Your task to perform on an android device: What's the weather going to be this weekend? Image 0: 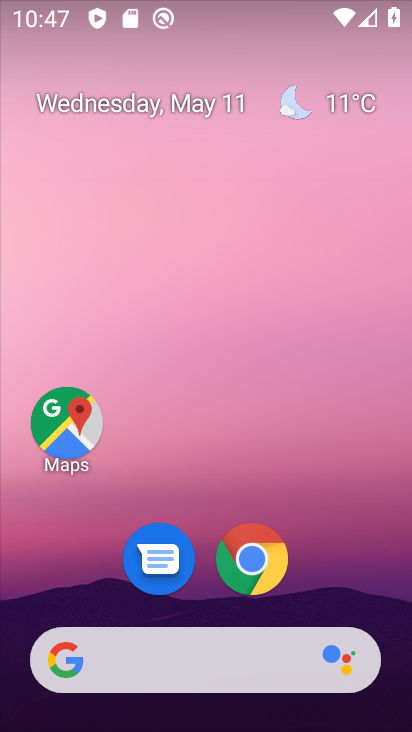
Step 0: click (314, 112)
Your task to perform on an android device: What's the weather going to be this weekend? Image 1: 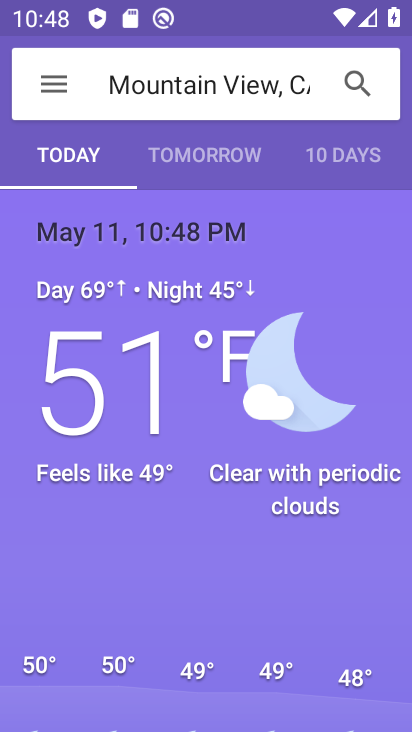
Step 1: click (331, 162)
Your task to perform on an android device: What's the weather going to be this weekend? Image 2: 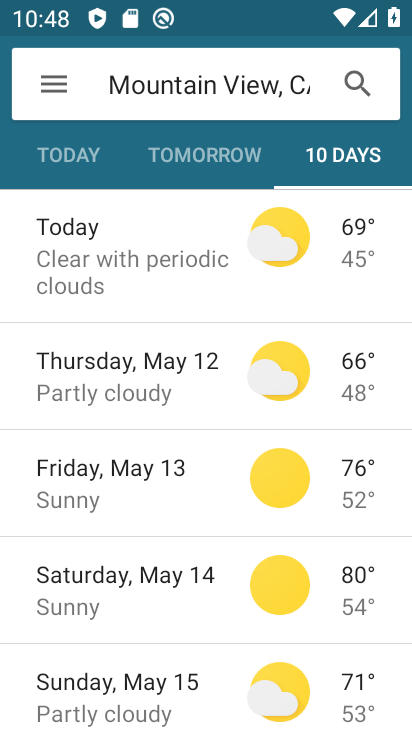
Step 2: task complete